Your task to perform on an android device: toggle pop-ups in chrome Image 0: 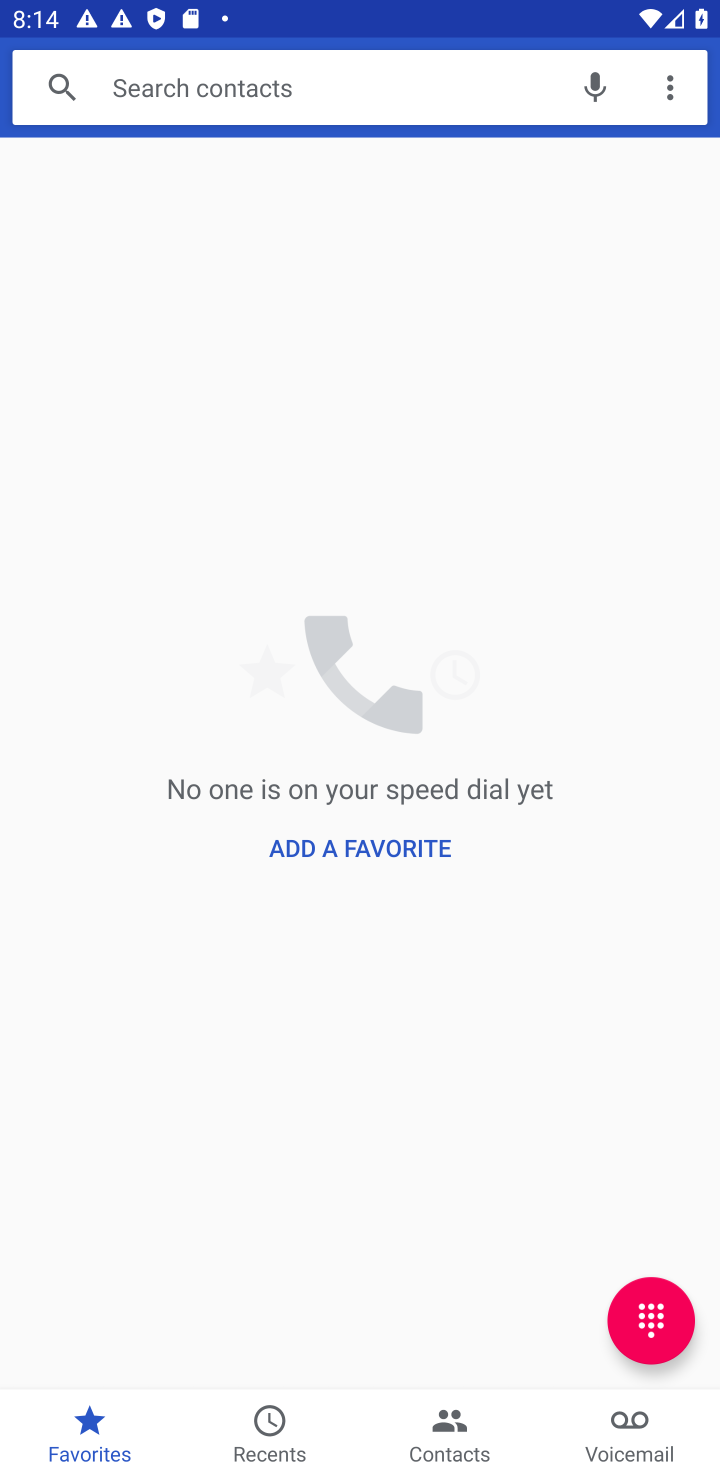
Step 0: press home button
Your task to perform on an android device: toggle pop-ups in chrome Image 1: 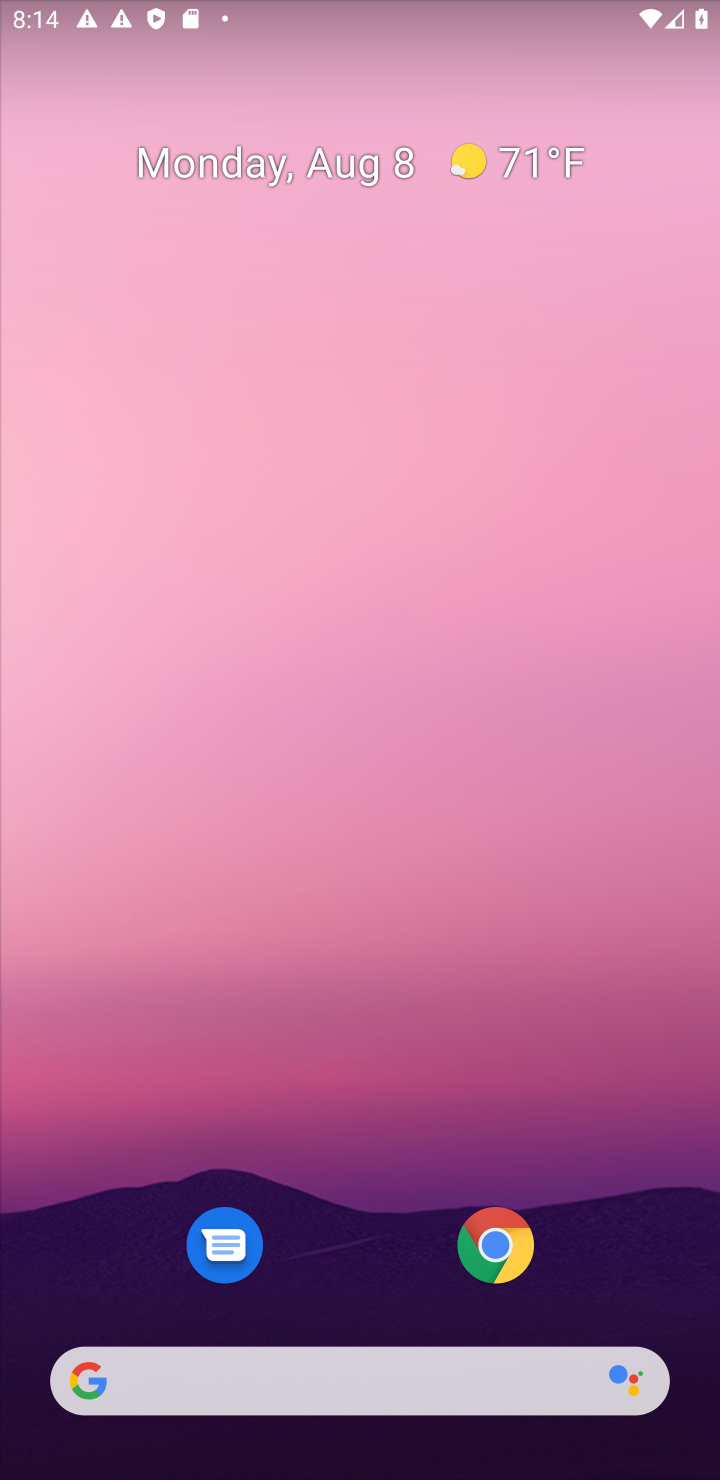
Step 1: drag from (348, 1202) to (371, 69)
Your task to perform on an android device: toggle pop-ups in chrome Image 2: 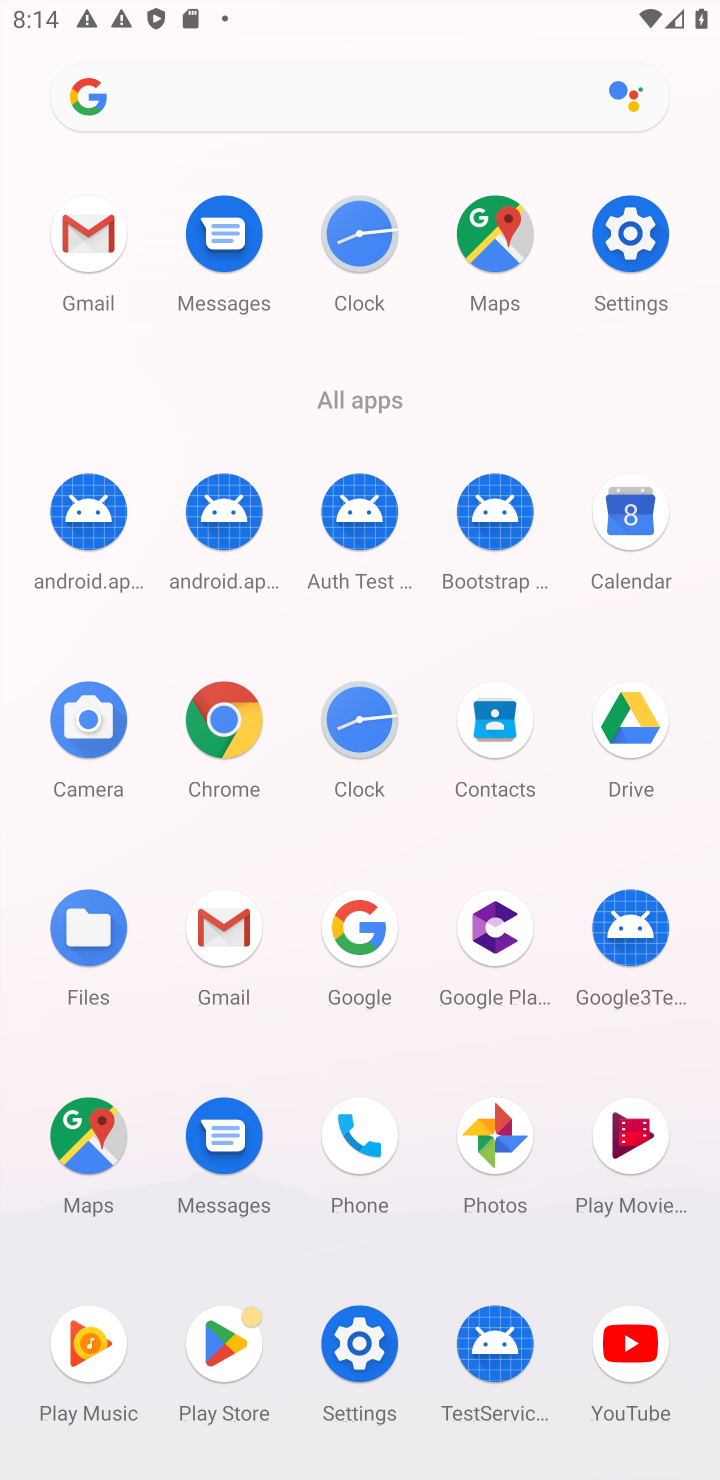
Step 2: click (213, 742)
Your task to perform on an android device: toggle pop-ups in chrome Image 3: 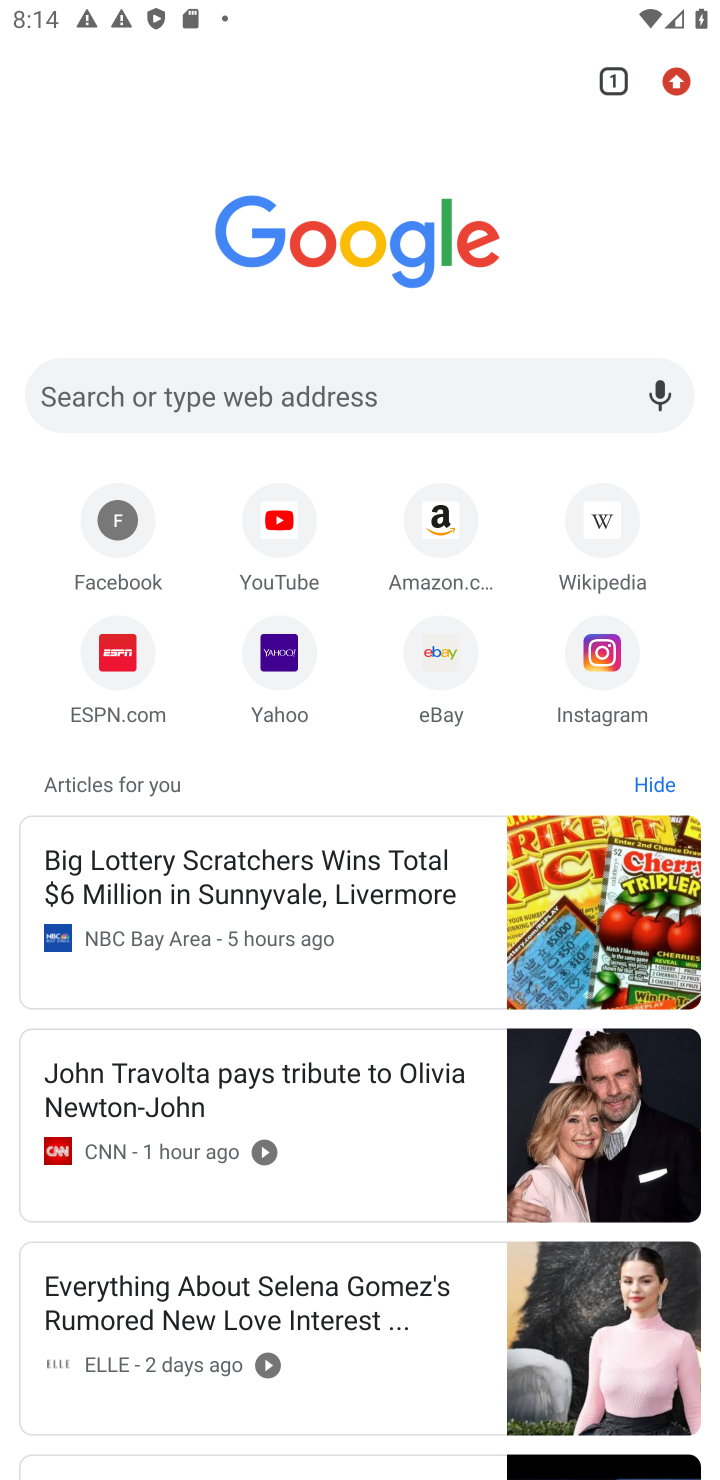
Step 3: click (670, 77)
Your task to perform on an android device: toggle pop-ups in chrome Image 4: 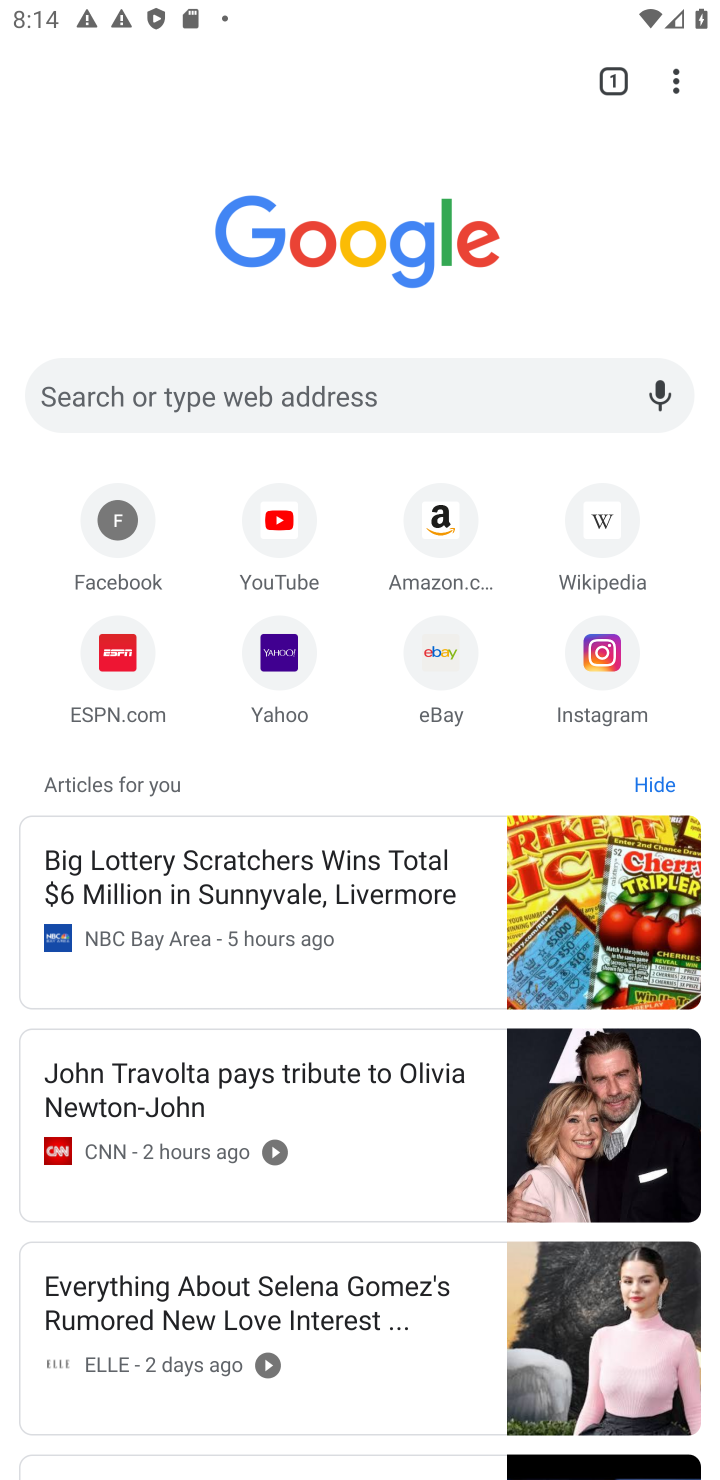
Step 4: click (663, 73)
Your task to perform on an android device: toggle pop-ups in chrome Image 5: 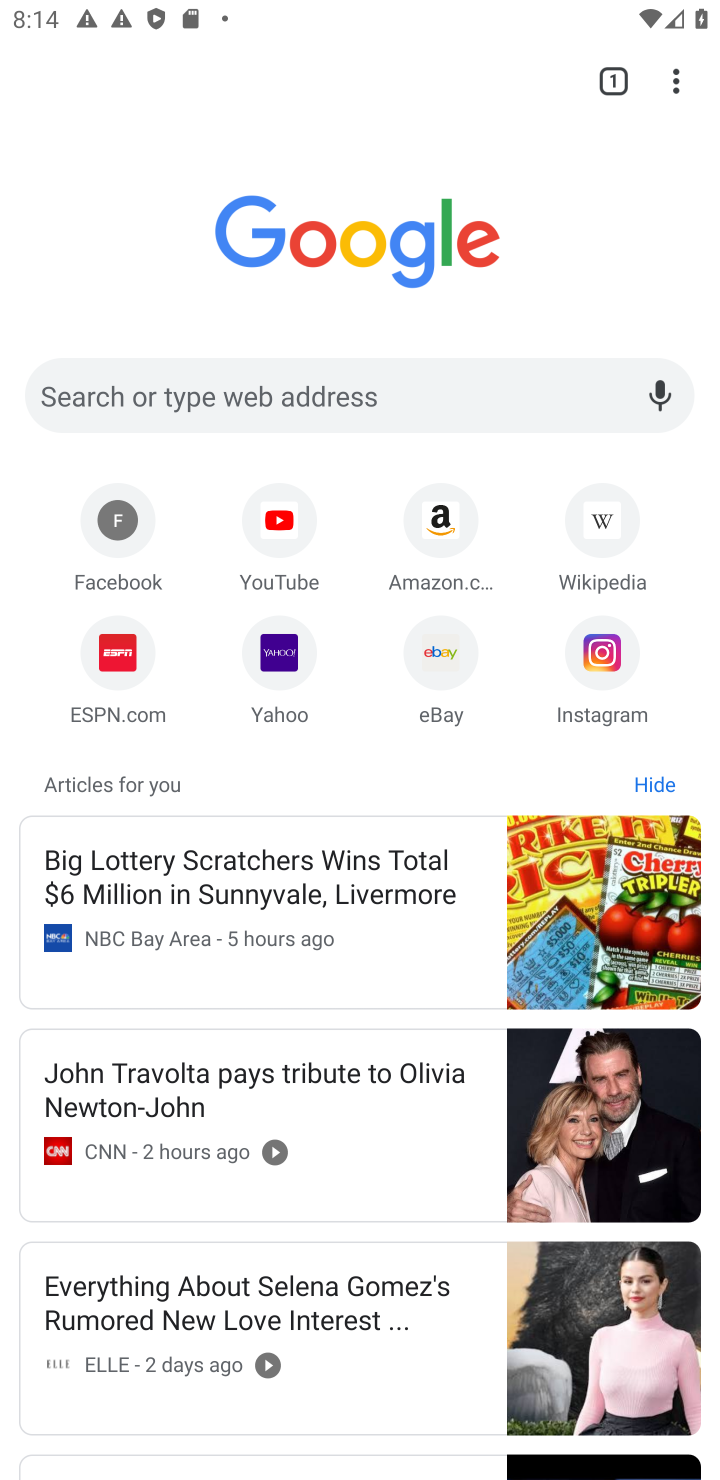
Step 5: click (674, 72)
Your task to perform on an android device: toggle pop-ups in chrome Image 6: 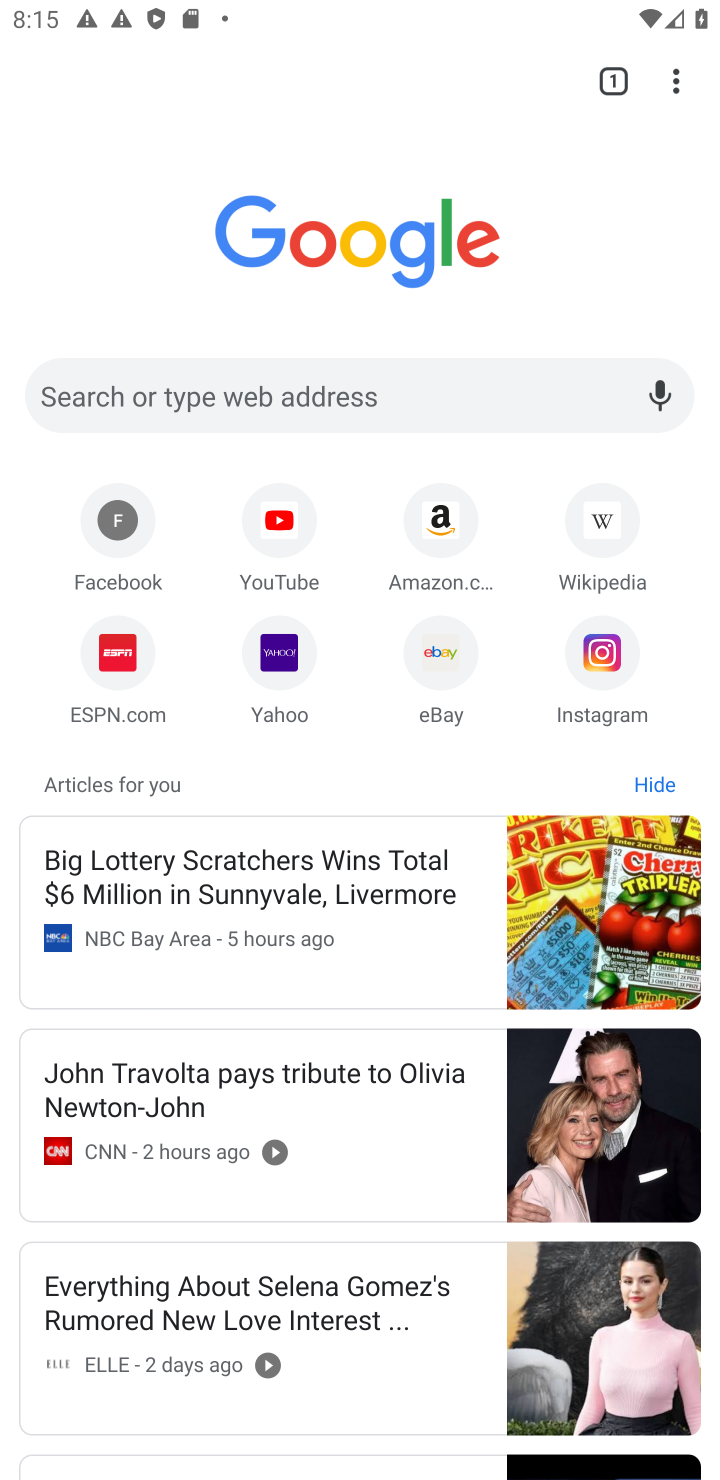
Step 6: click (671, 100)
Your task to perform on an android device: toggle pop-ups in chrome Image 7: 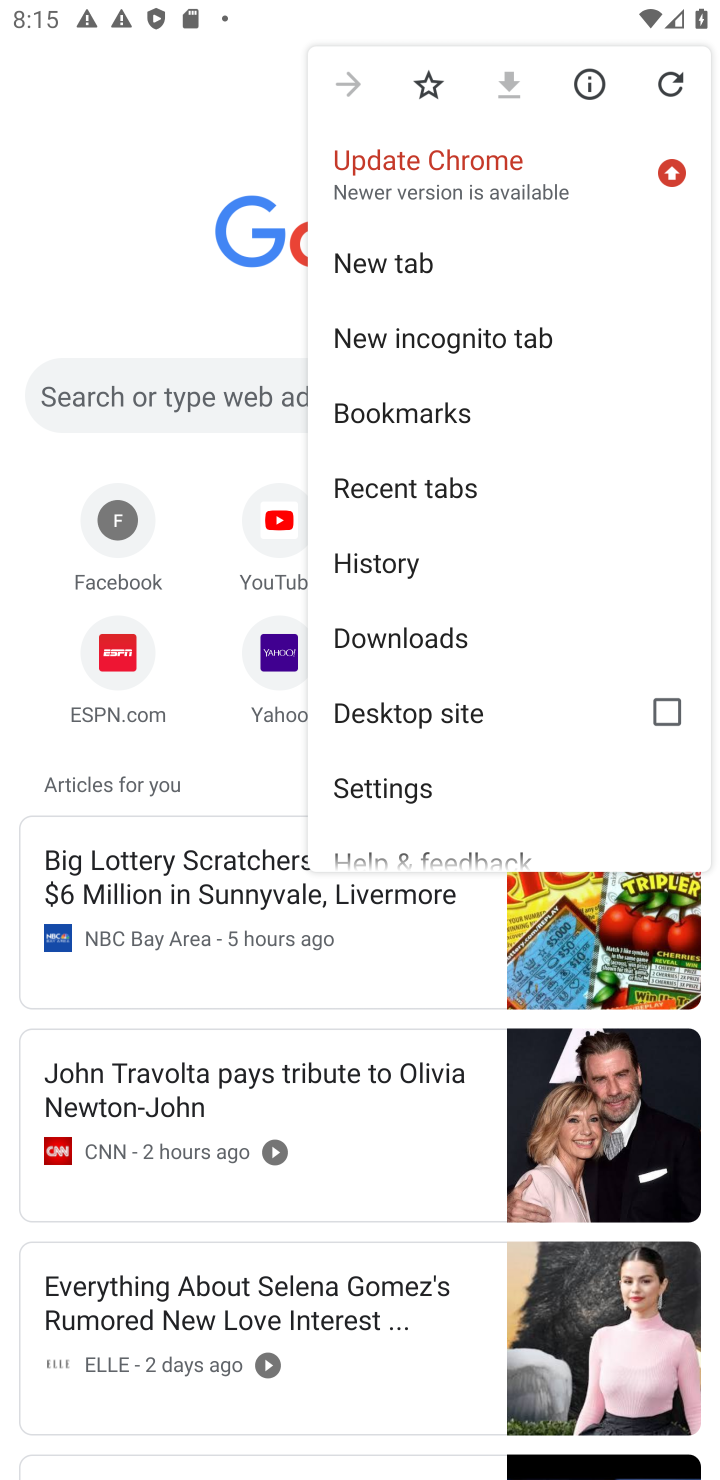
Step 7: click (392, 803)
Your task to perform on an android device: toggle pop-ups in chrome Image 8: 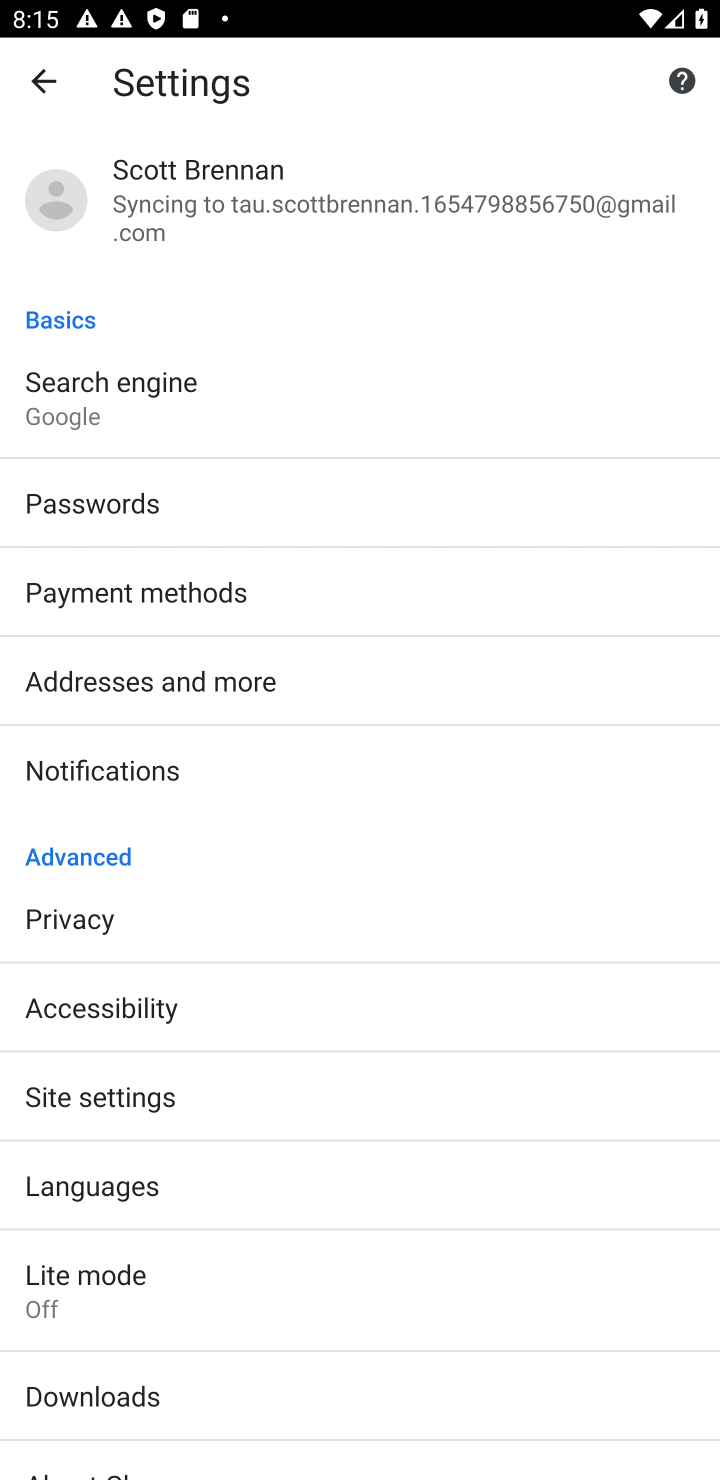
Step 8: click (131, 1106)
Your task to perform on an android device: toggle pop-ups in chrome Image 9: 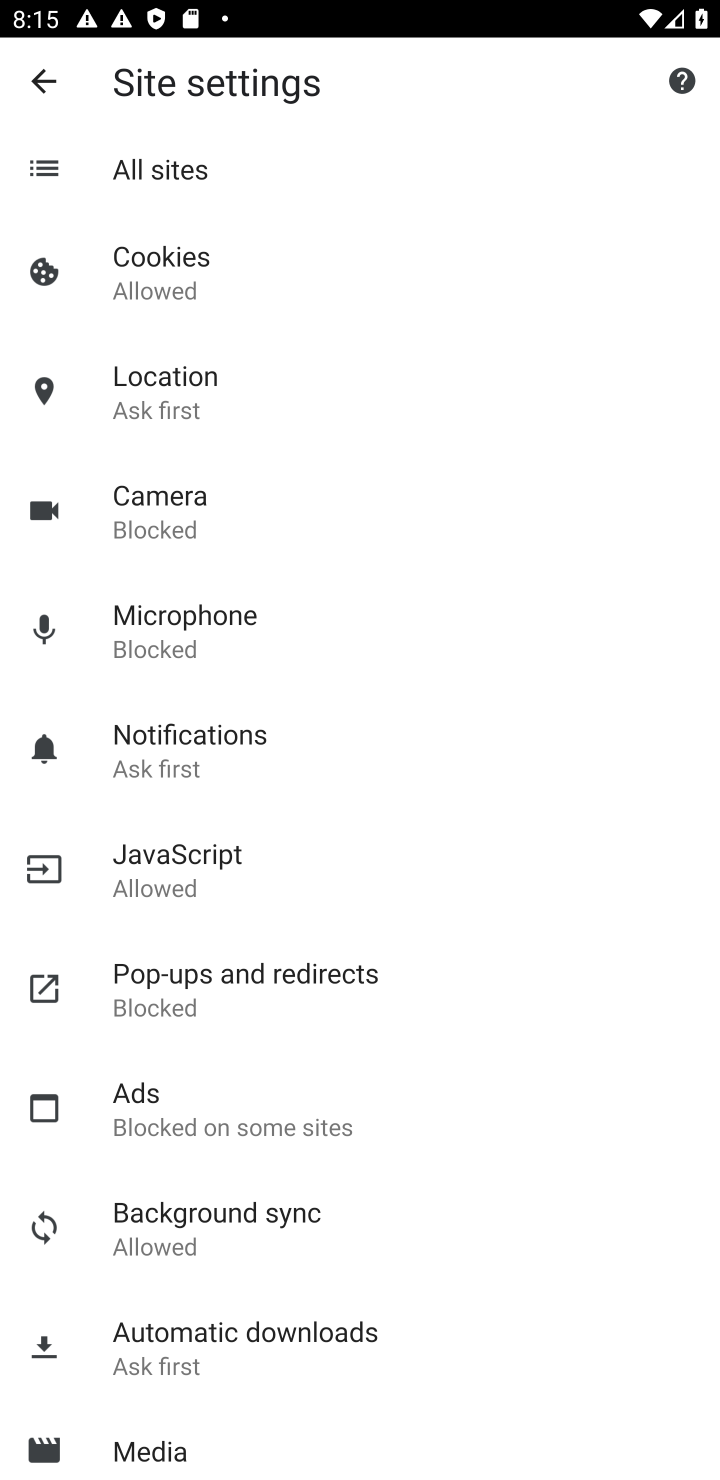
Step 9: click (191, 1013)
Your task to perform on an android device: toggle pop-ups in chrome Image 10: 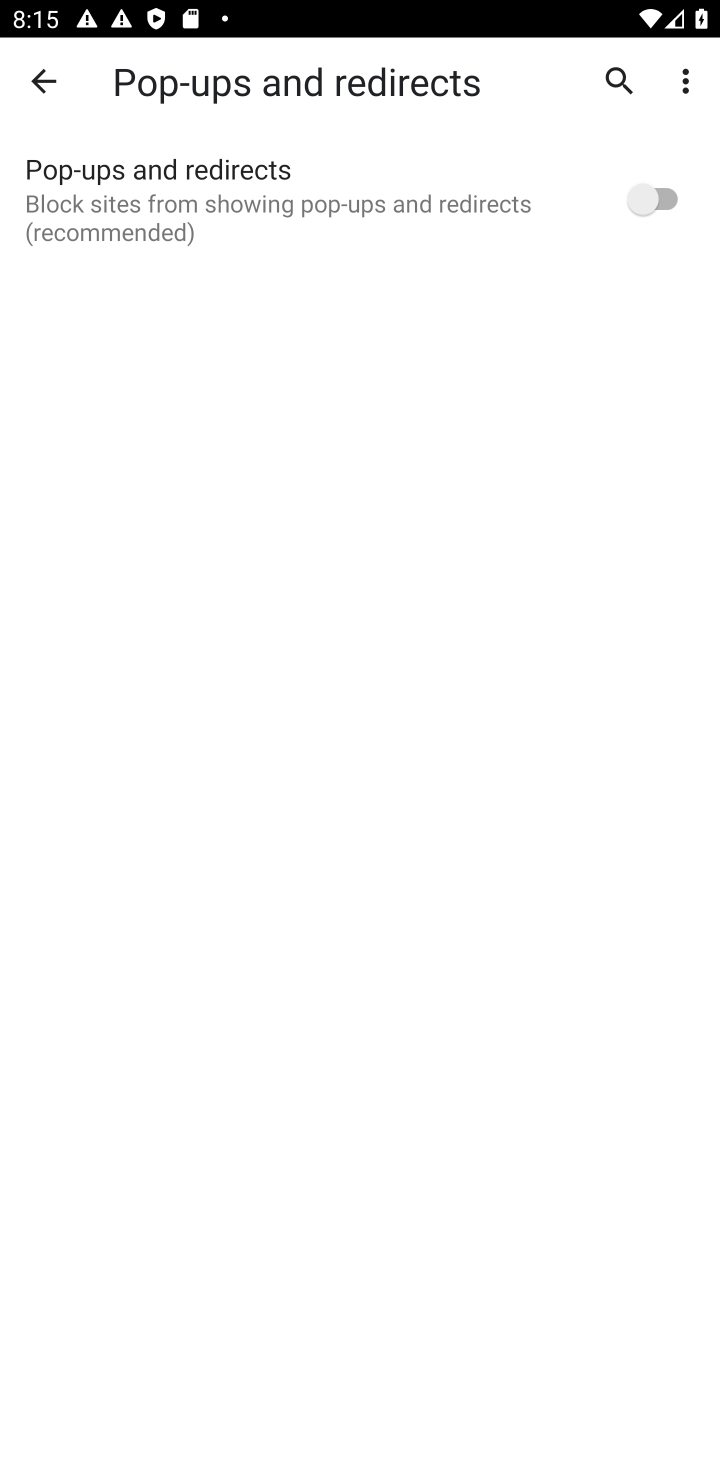
Step 10: click (680, 180)
Your task to perform on an android device: toggle pop-ups in chrome Image 11: 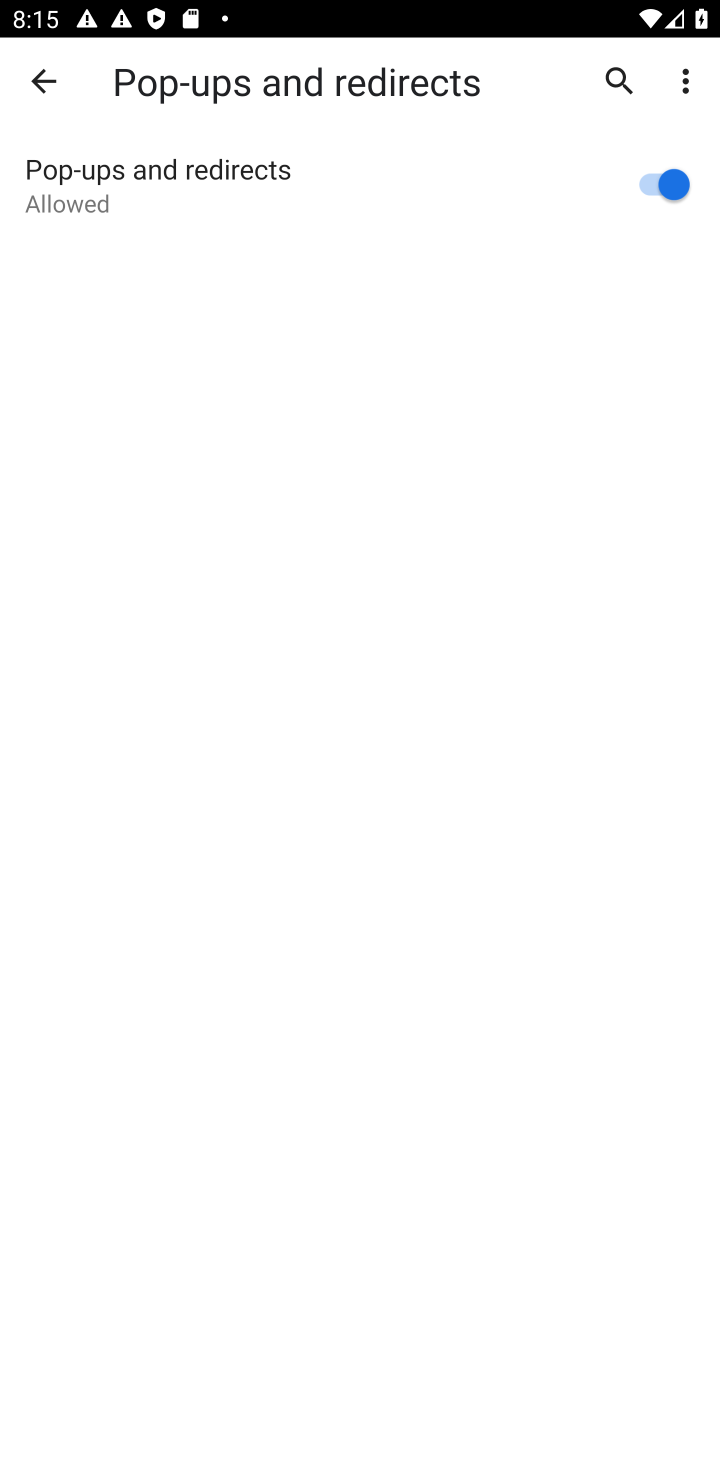
Step 11: task complete